Your task to perform on an android device: find photos in the google photos app Image 0: 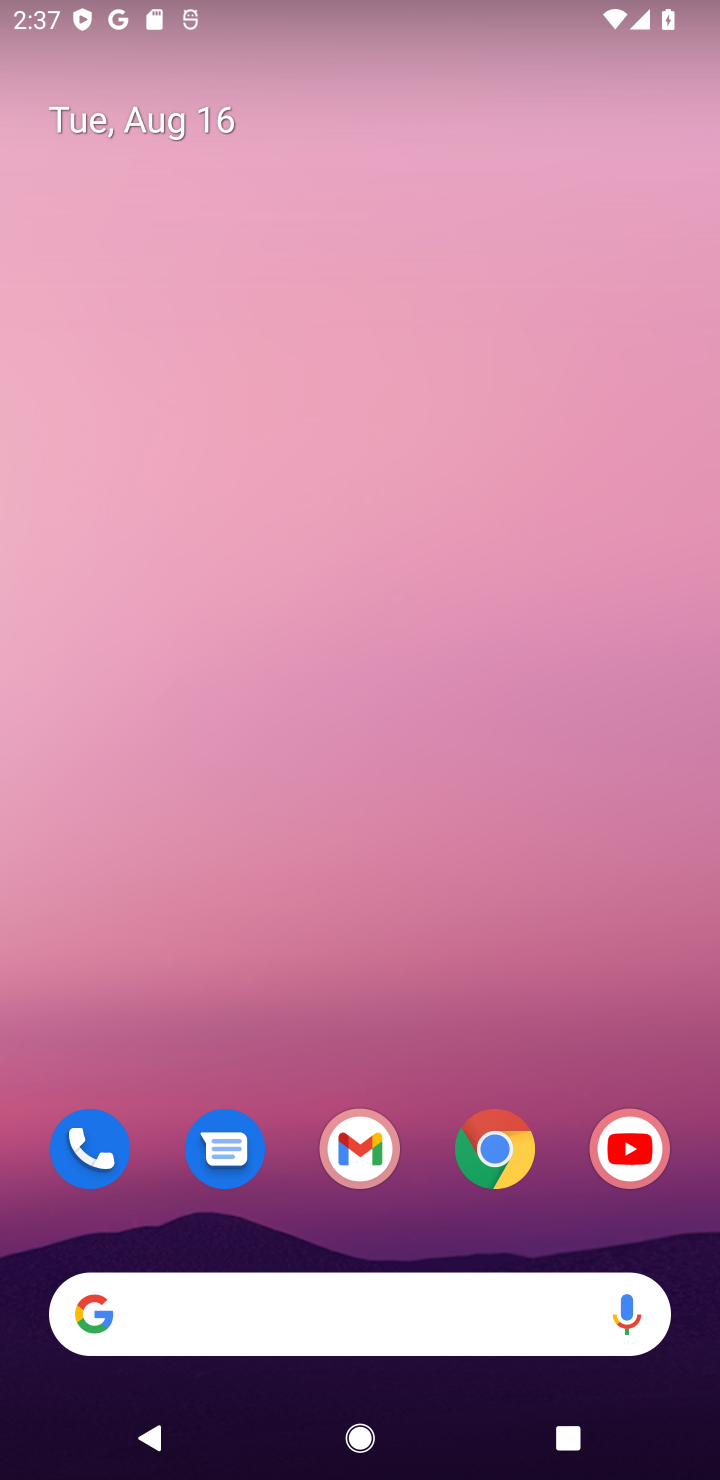
Step 0: drag from (414, 976) to (290, 0)
Your task to perform on an android device: find photos in the google photos app Image 1: 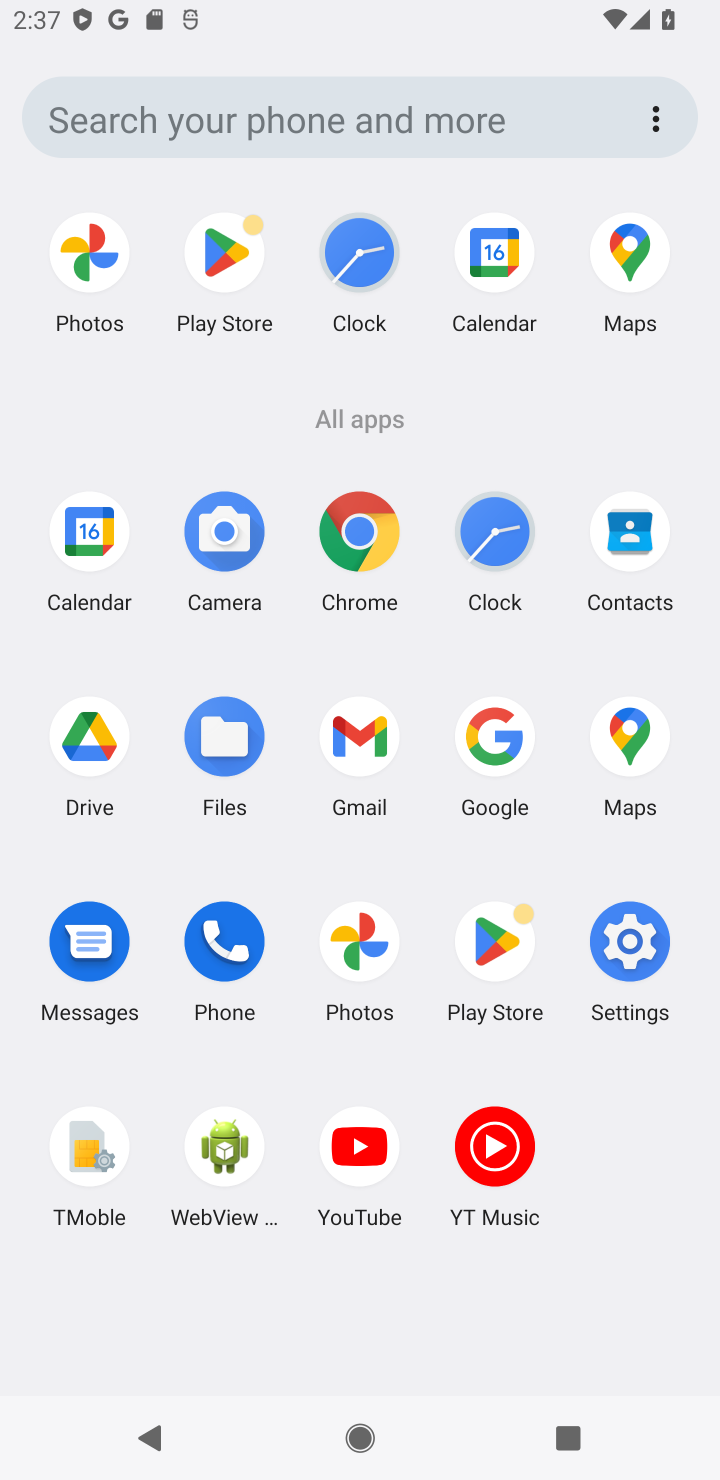
Step 1: click (367, 944)
Your task to perform on an android device: find photos in the google photos app Image 2: 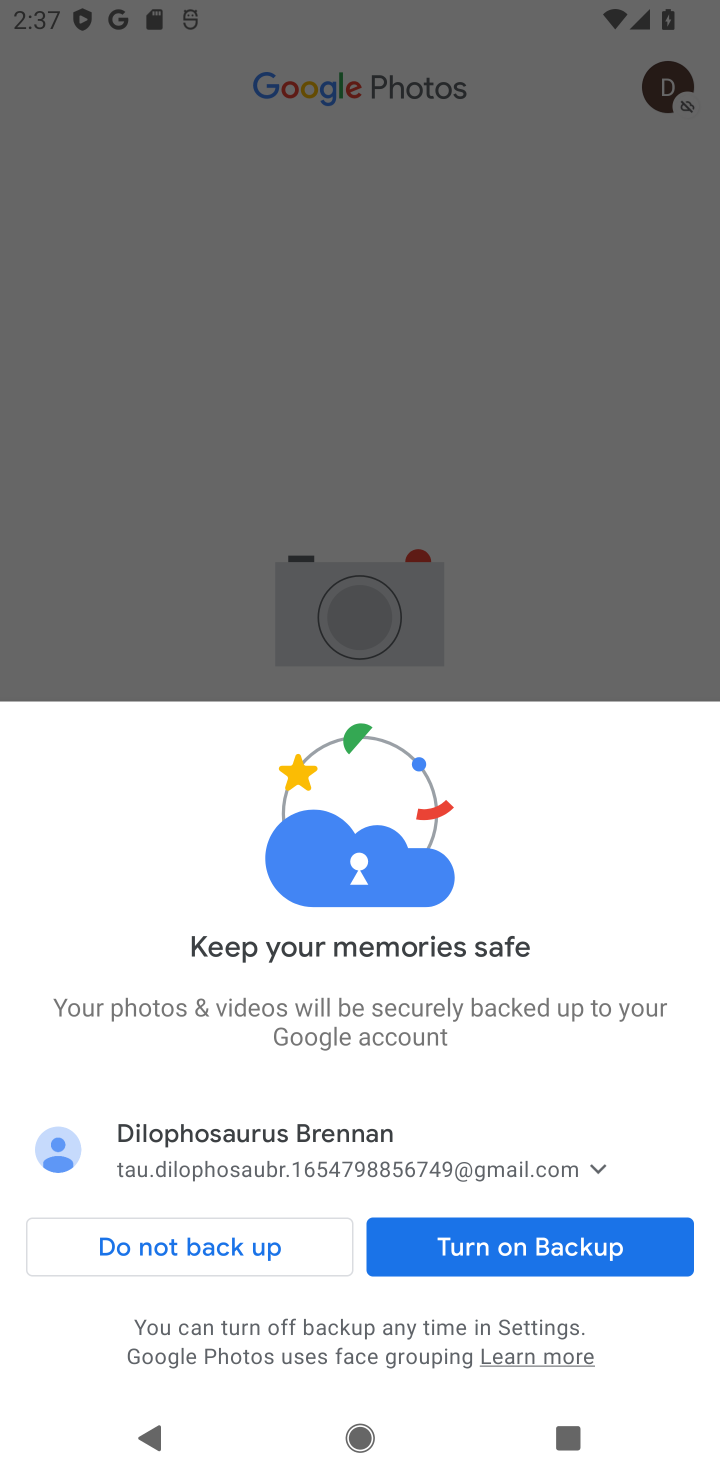
Step 2: click (513, 1256)
Your task to perform on an android device: find photos in the google photos app Image 3: 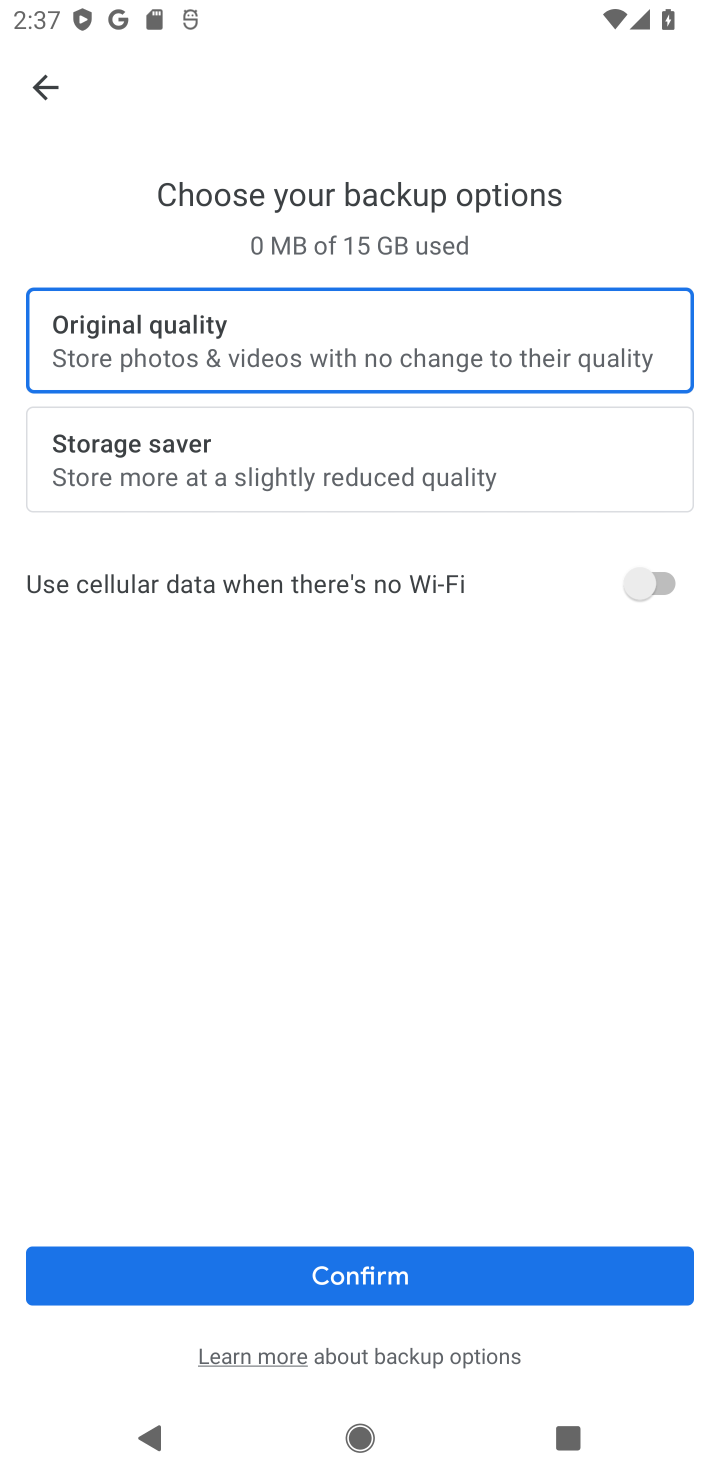
Step 3: click (513, 1276)
Your task to perform on an android device: find photos in the google photos app Image 4: 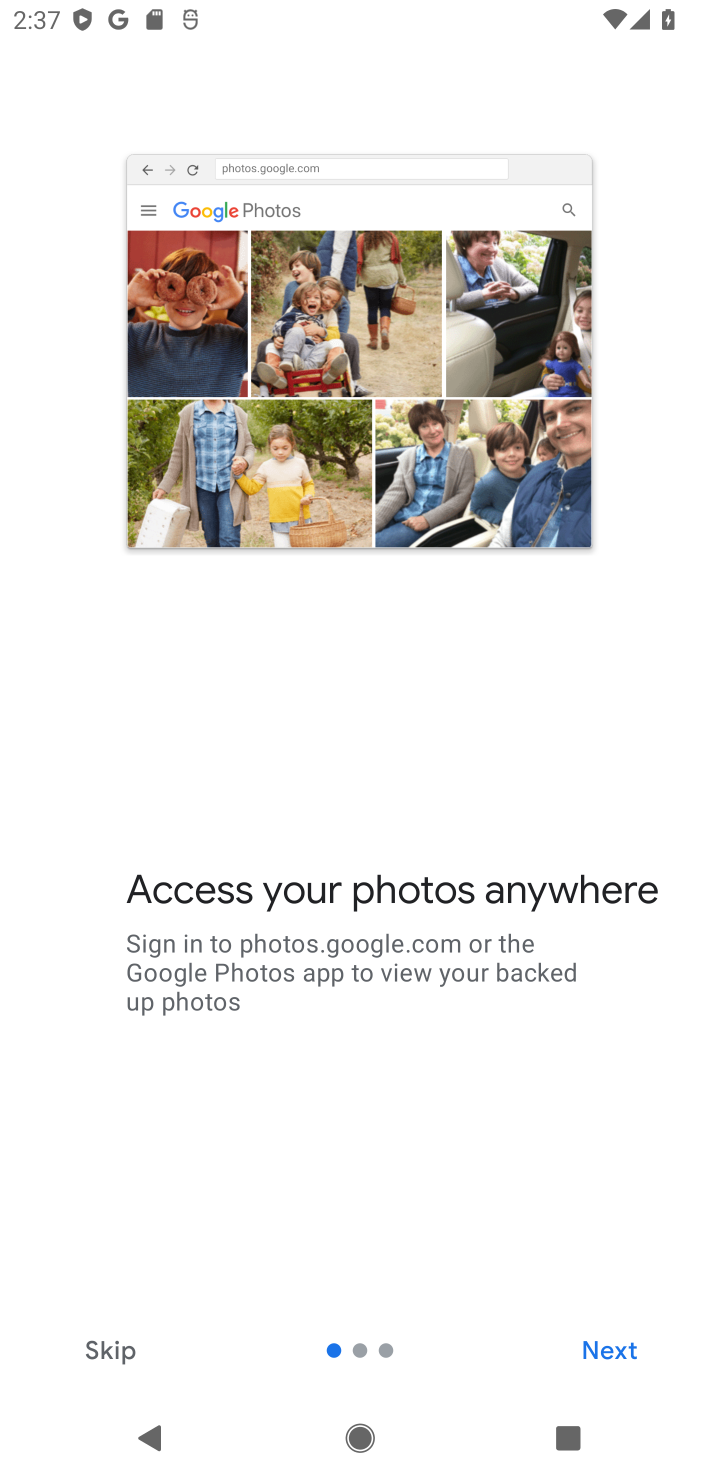
Step 4: click (614, 1355)
Your task to perform on an android device: find photos in the google photos app Image 5: 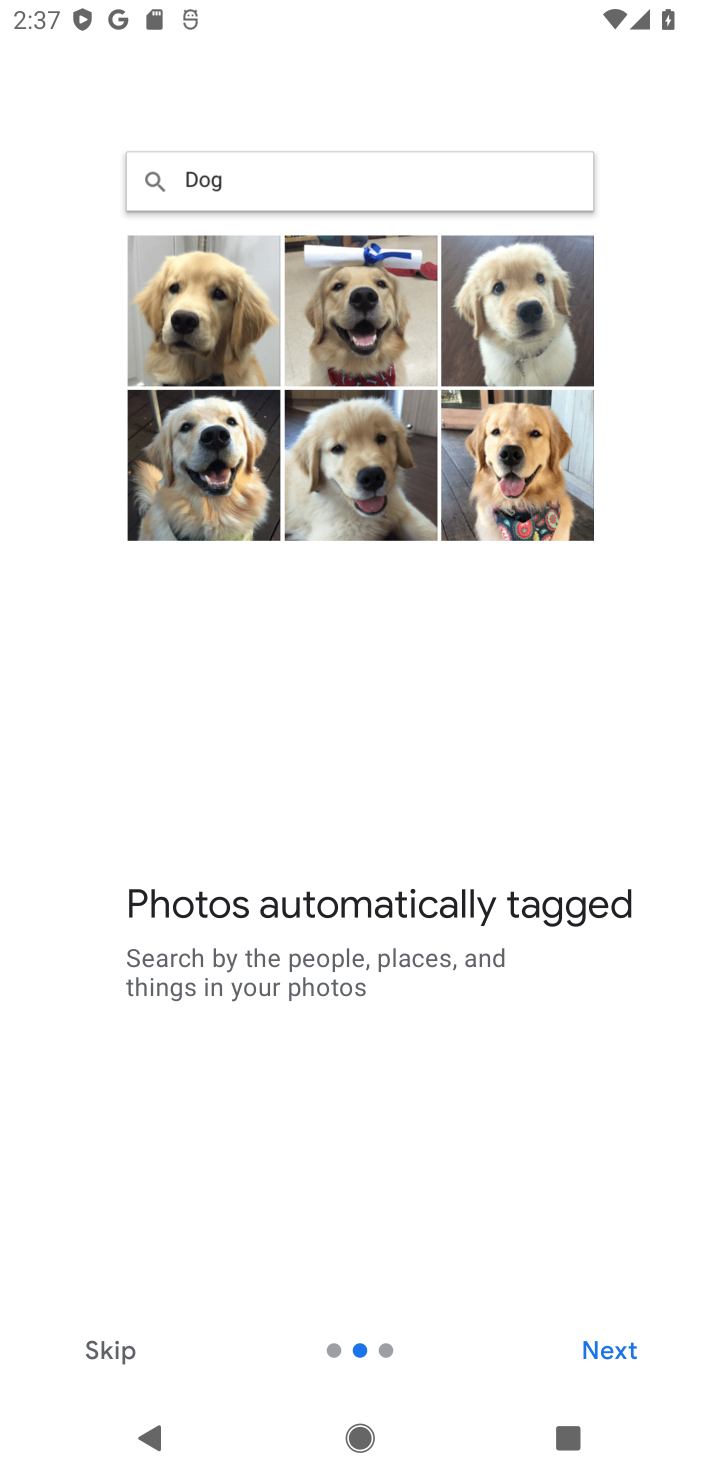
Step 5: click (612, 1338)
Your task to perform on an android device: find photos in the google photos app Image 6: 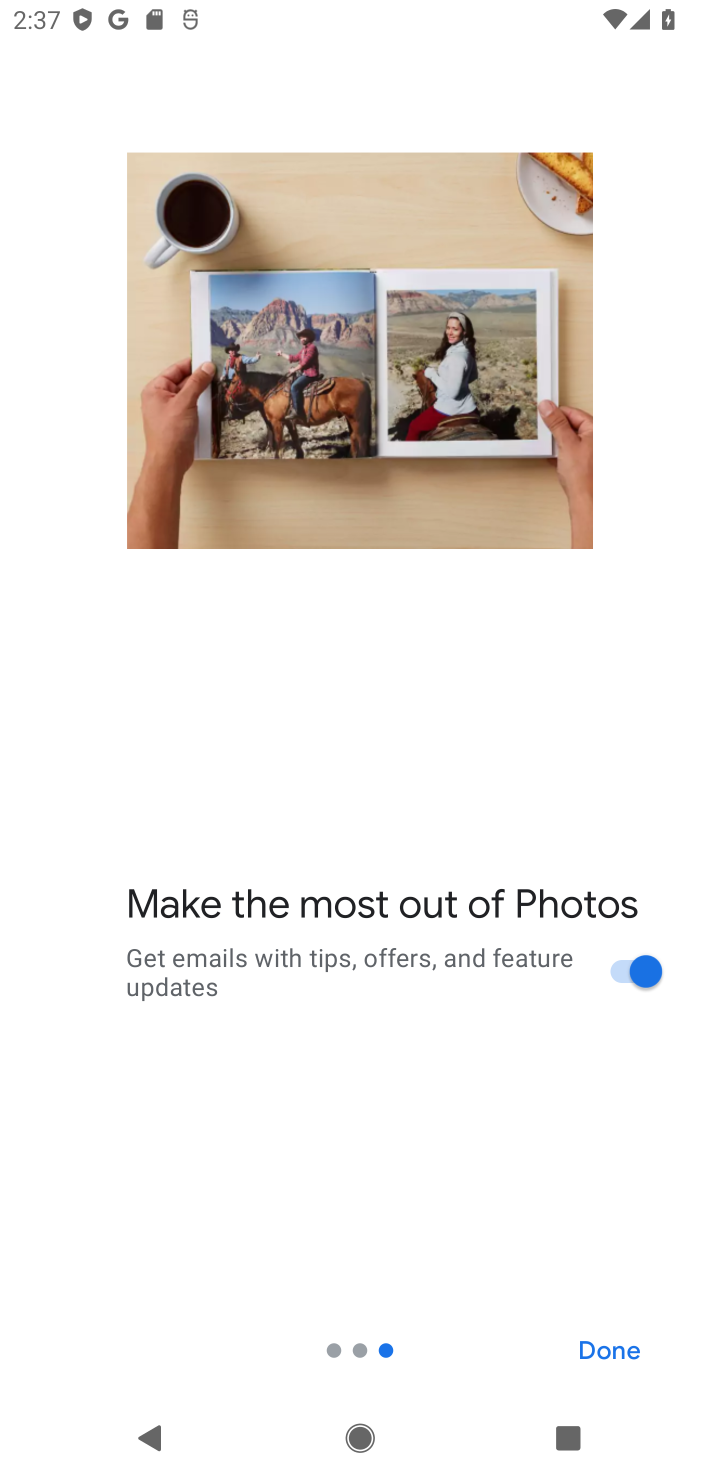
Step 6: click (612, 1338)
Your task to perform on an android device: find photos in the google photos app Image 7: 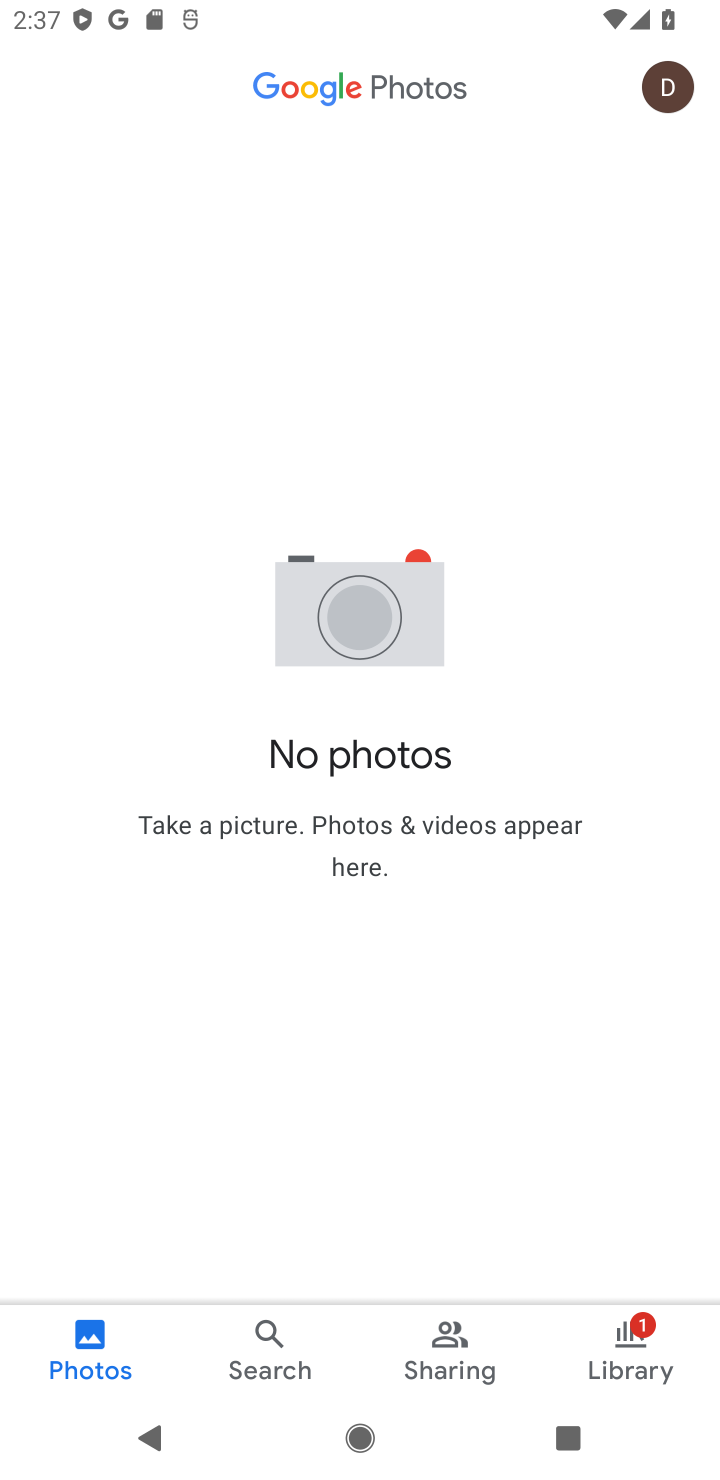
Step 7: task complete